Your task to perform on an android device: Go to display settings Image 0: 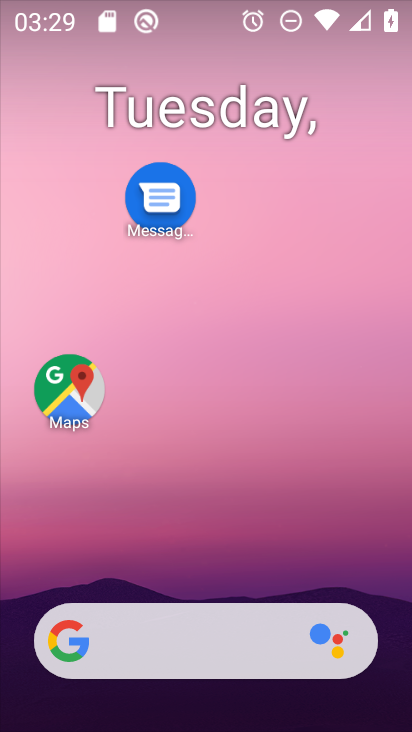
Step 0: drag from (204, 581) to (260, 229)
Your task to perform on an android device: Go to display settings Image 1: 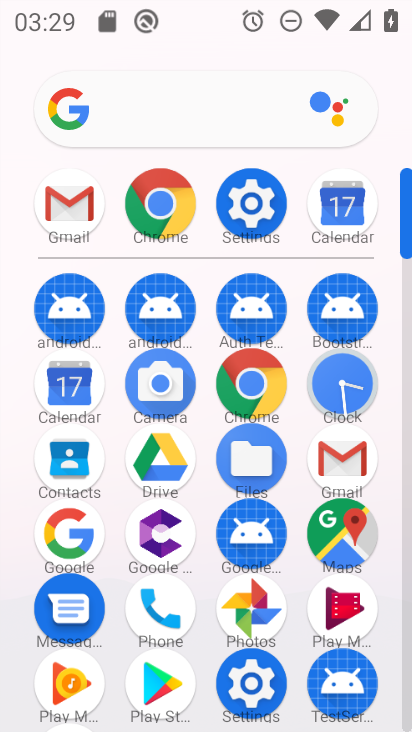
Step 1: click (262, 219)
Your task to perform on an android device: Go to display settings Image 2: 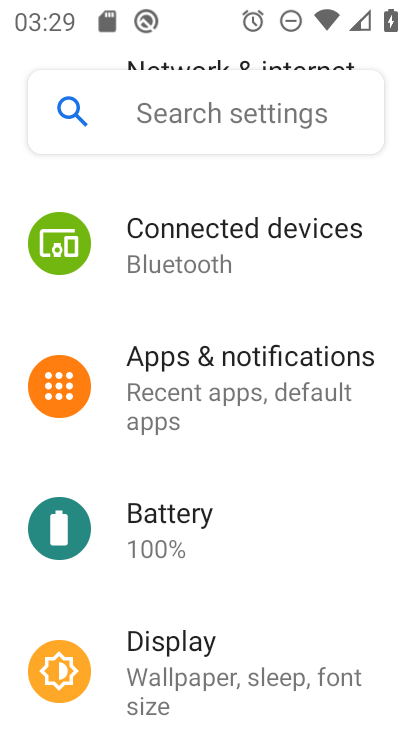
Step 2: drag from (262, 219) to (292, 198)
Your task to perform on an android device: Go to display settings Image 3: 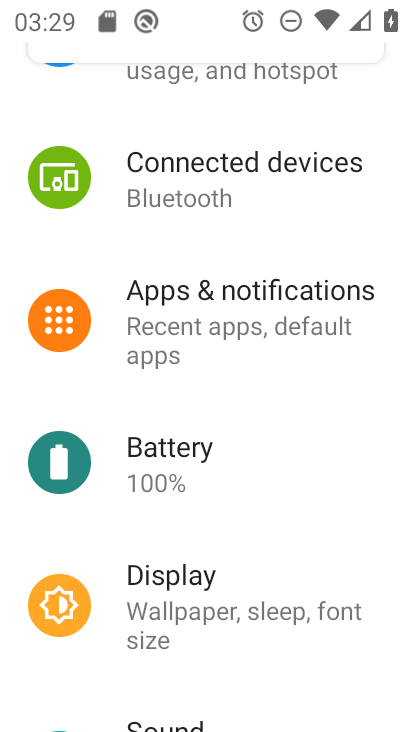
Step 3: click (183, 567)
Your task to perform on an android device: Go to display settings Image 4: 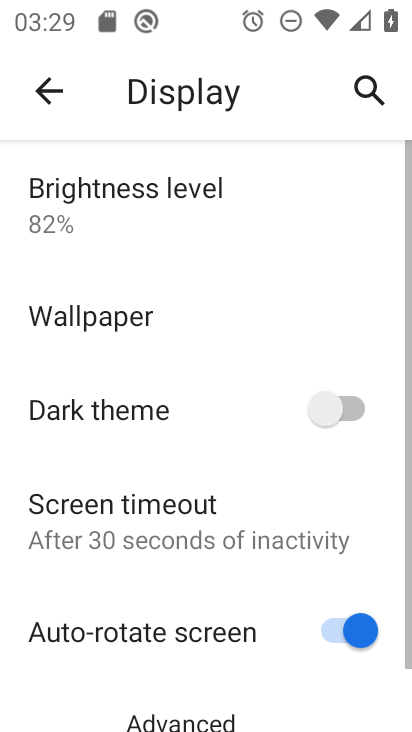
Step 4: task complete